Your task to perform on an android device: Open the phone app and click the voicemail tab. Image 0: 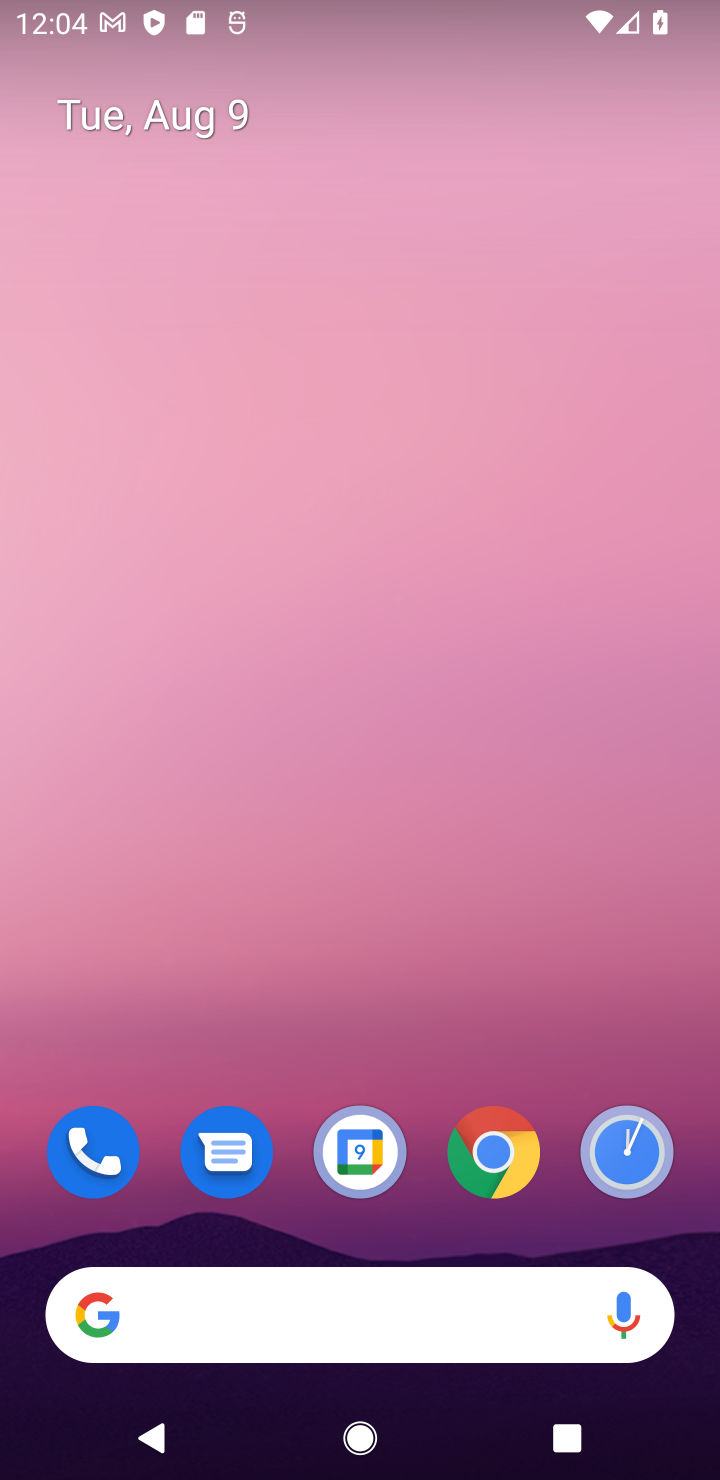
Step 0: drag from (519, 1075) to (424, 115)
Your task to perform on an android device: Open the phone app and click the voicemail tab. Image 1: 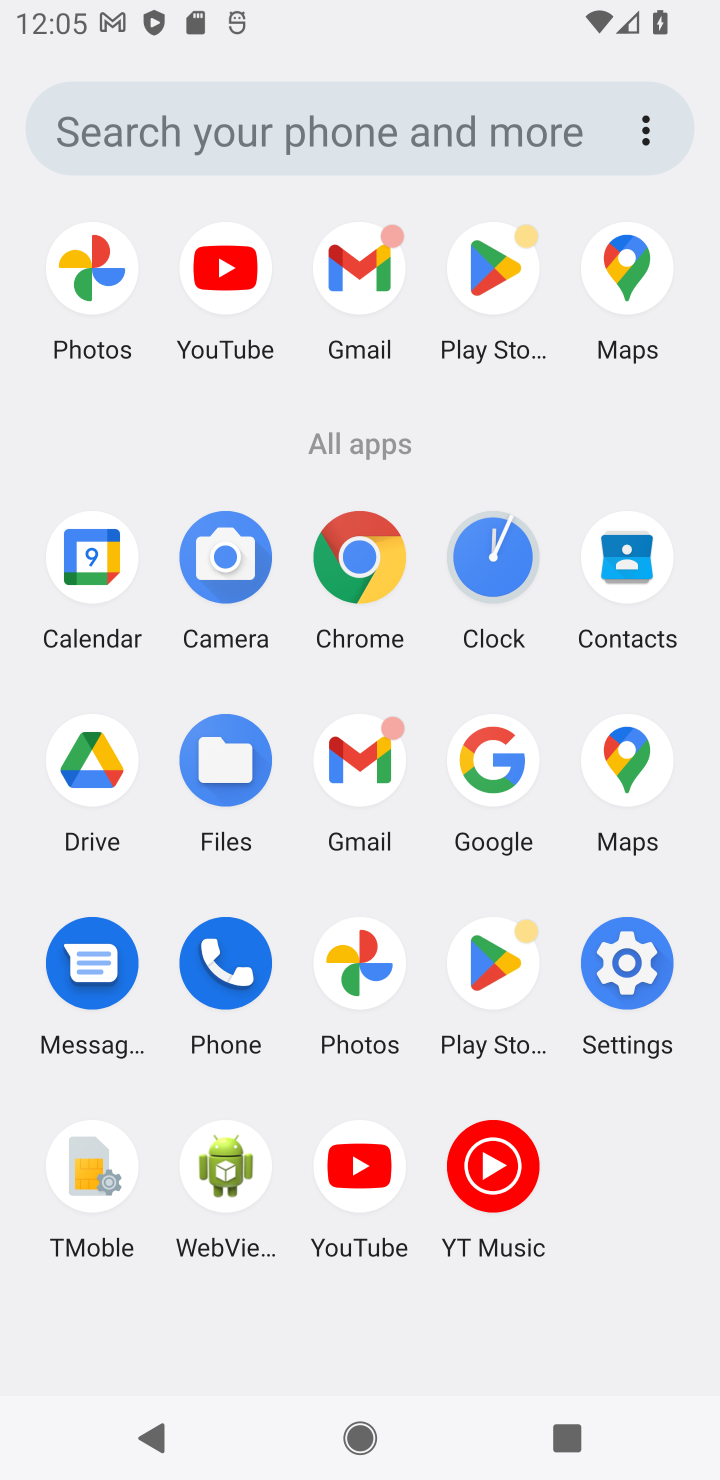
Step 1: click (222, 978)
Your task to perform on an android device: Open the phone app and click the voicemail tab. Image 2: 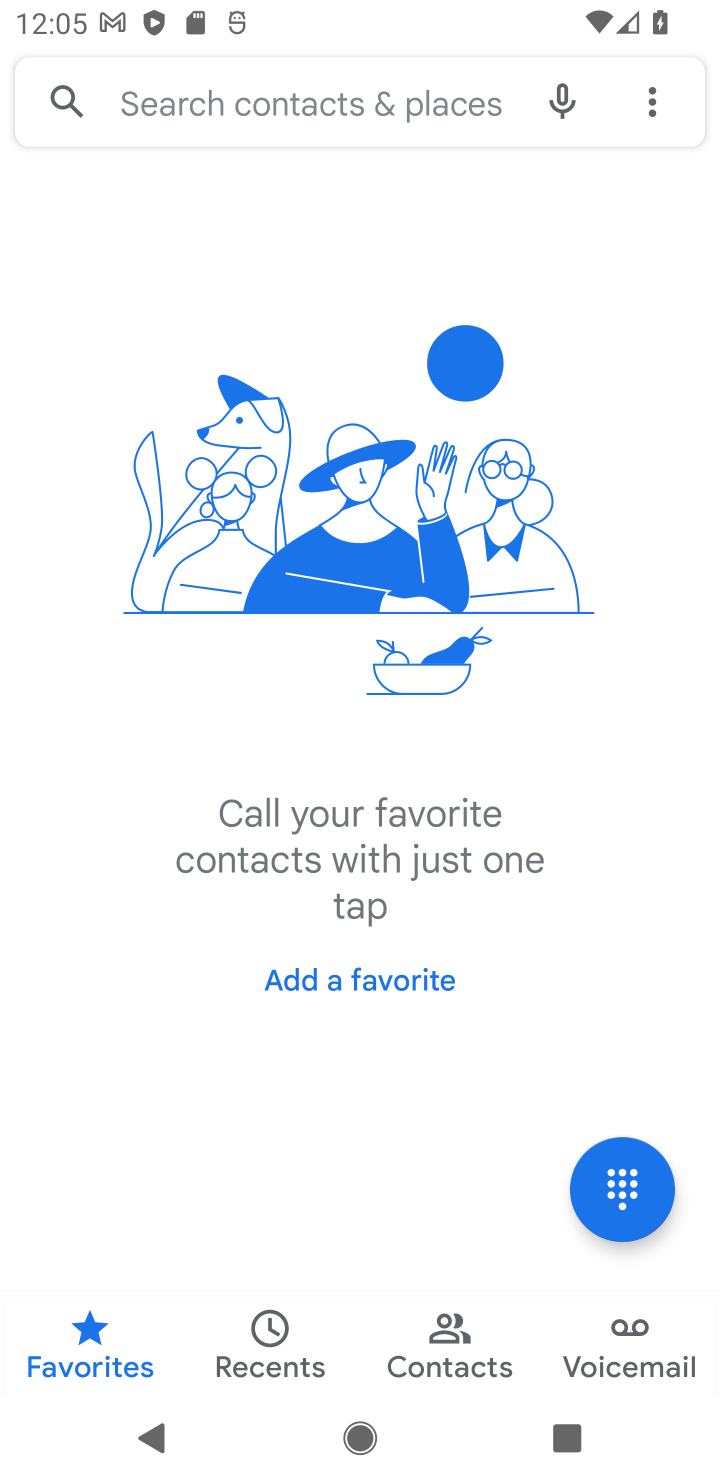
Step 2: click (635, 1344)
Your task to perform on an android device: Open the phone app and click the voicemail tab. Image 3: 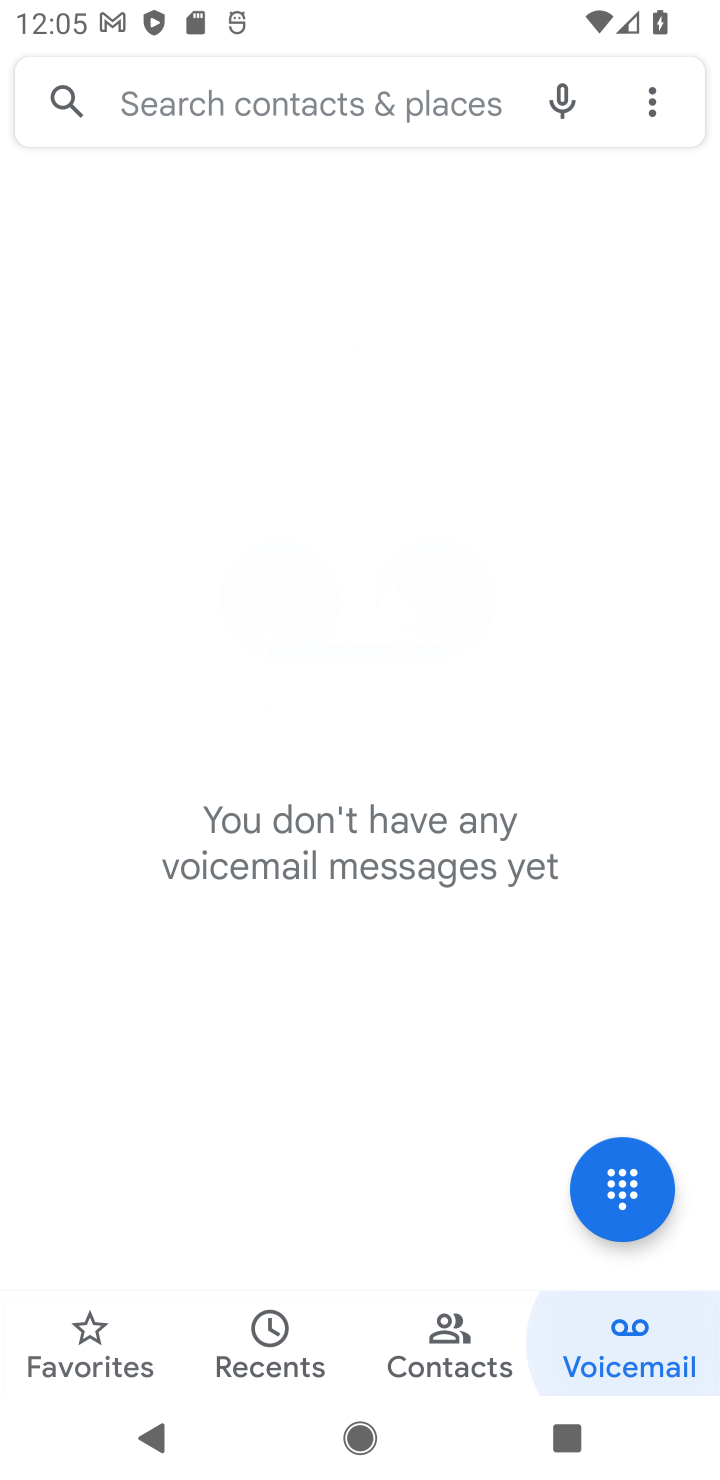
Step 3: click (635, 1344)
Your task to perform on an android device: Open the phone app and click the voicemail tab. Image 4: 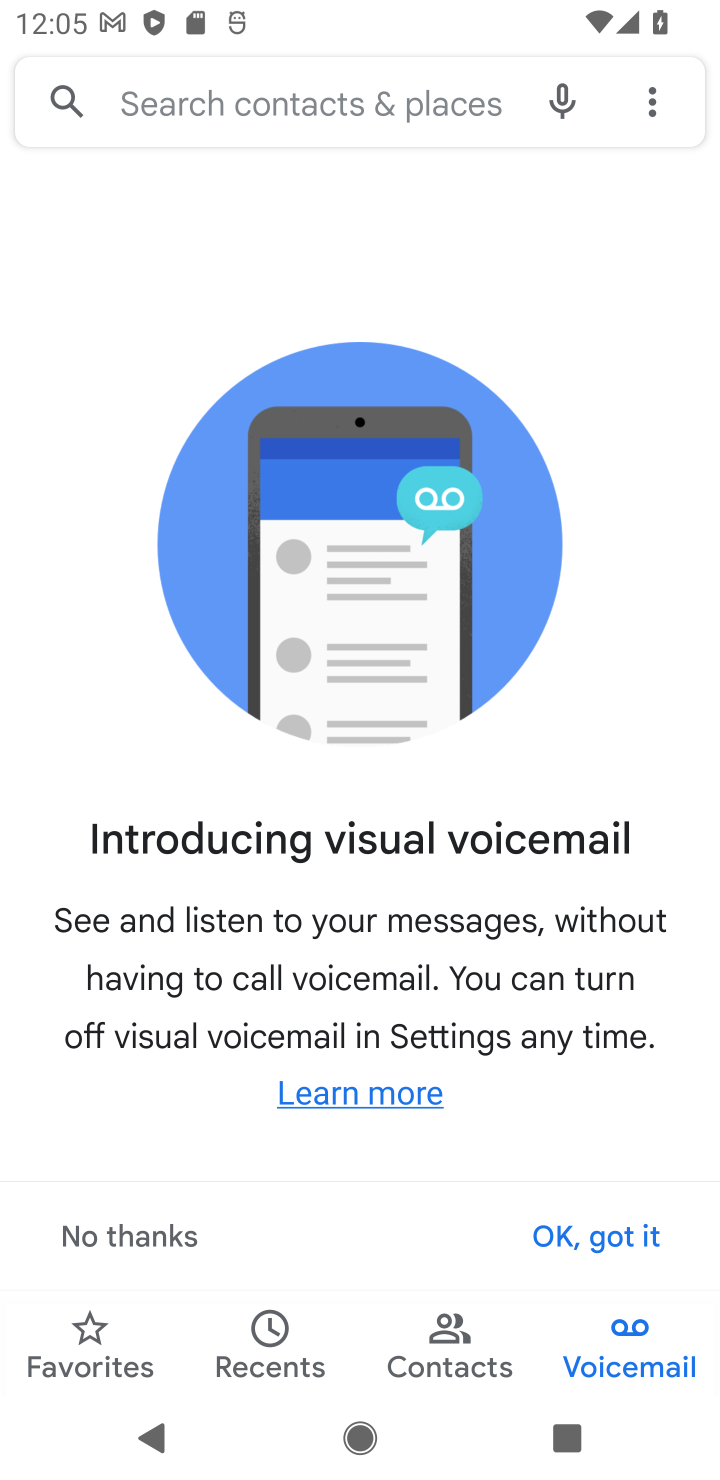
Step 4: task complete